Your task to perform on an android device: Open Google Maps Image 0: 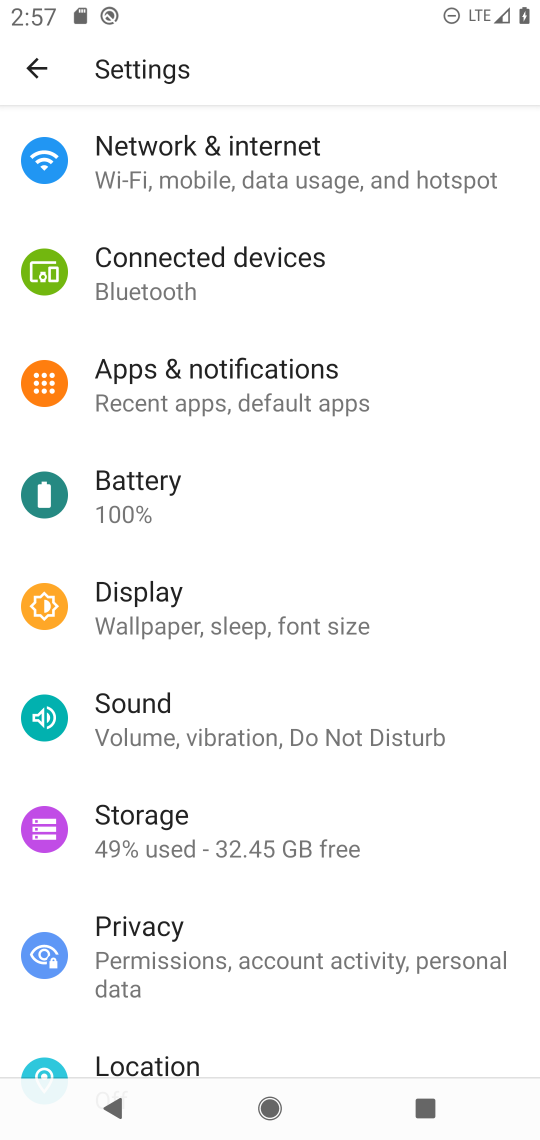
Step 0: press home button
Your task to perform on an android device: Open Google Maps Image 1: 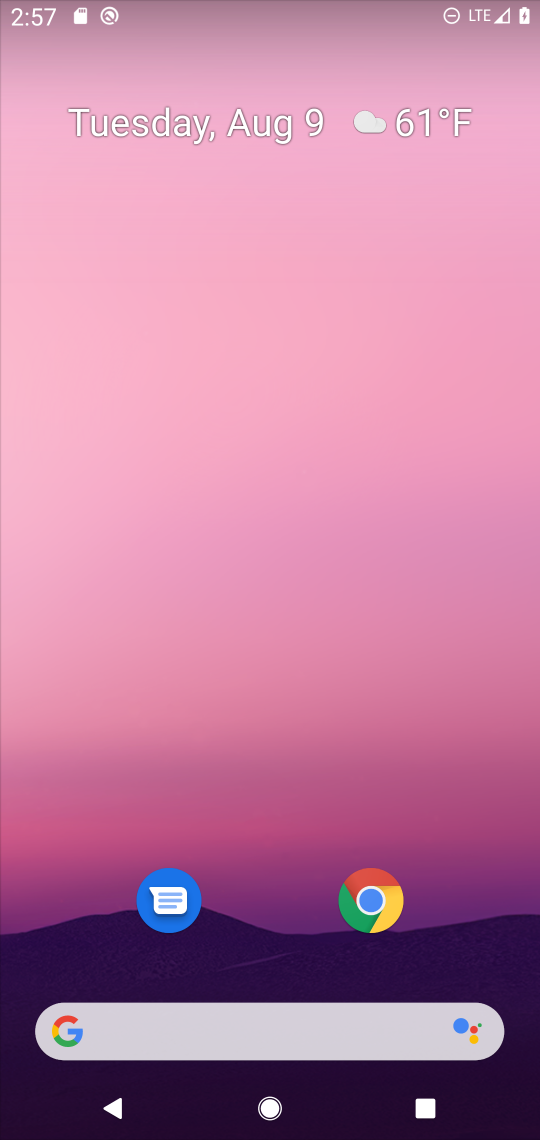
Step 1: drag from (457, 919) to (467, 349)
Your task to perform on an android device: Open Google Maps Image 2: 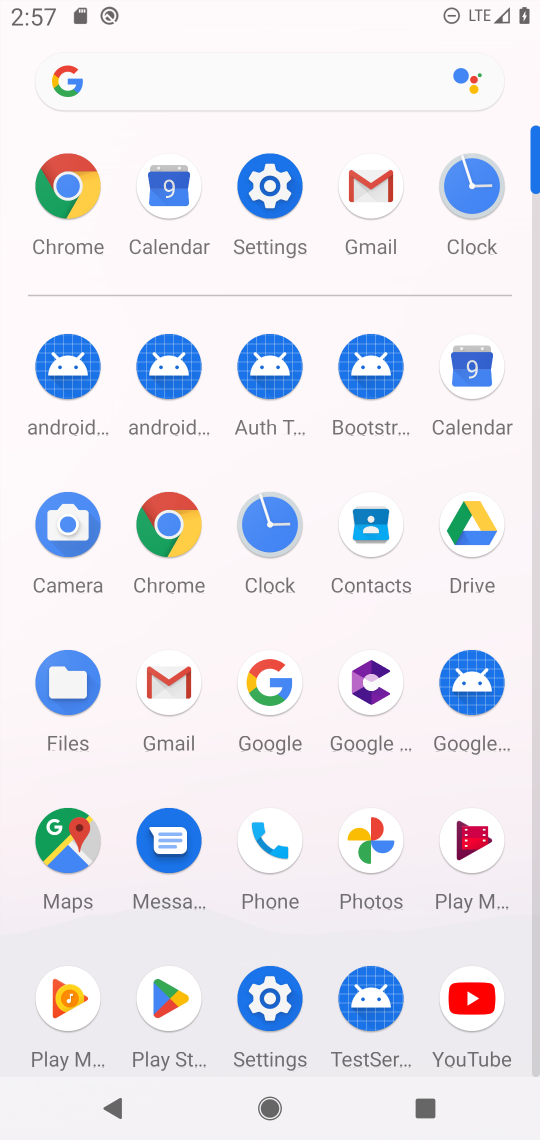
Step 2: click (80, 830)
Your task to perform on an android device: Open Google Maps Image 3: 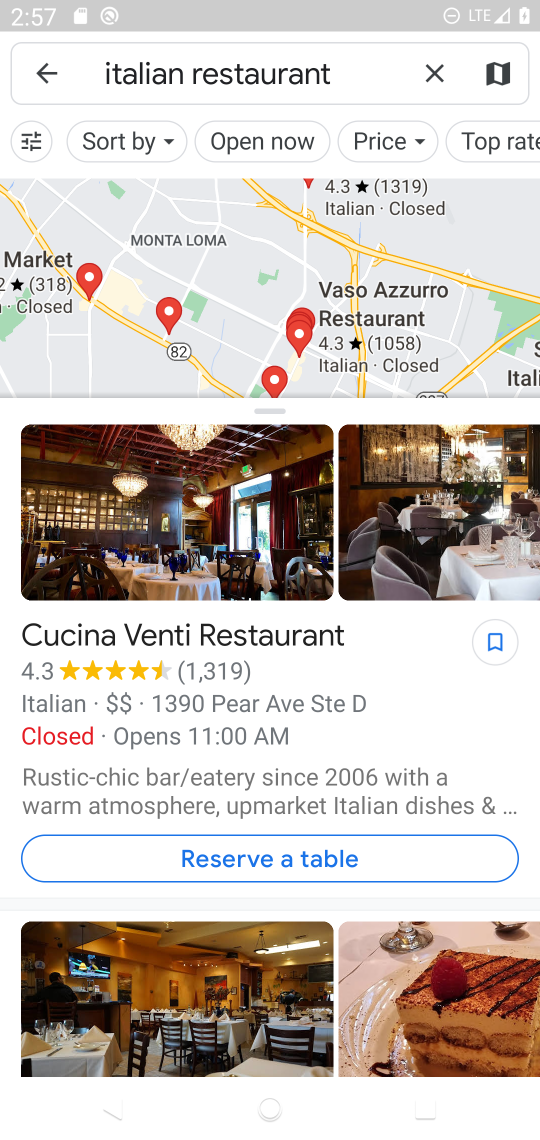
Step 3: task complete